Your task to perform on an android device: install app "Pinterest" Image 0: 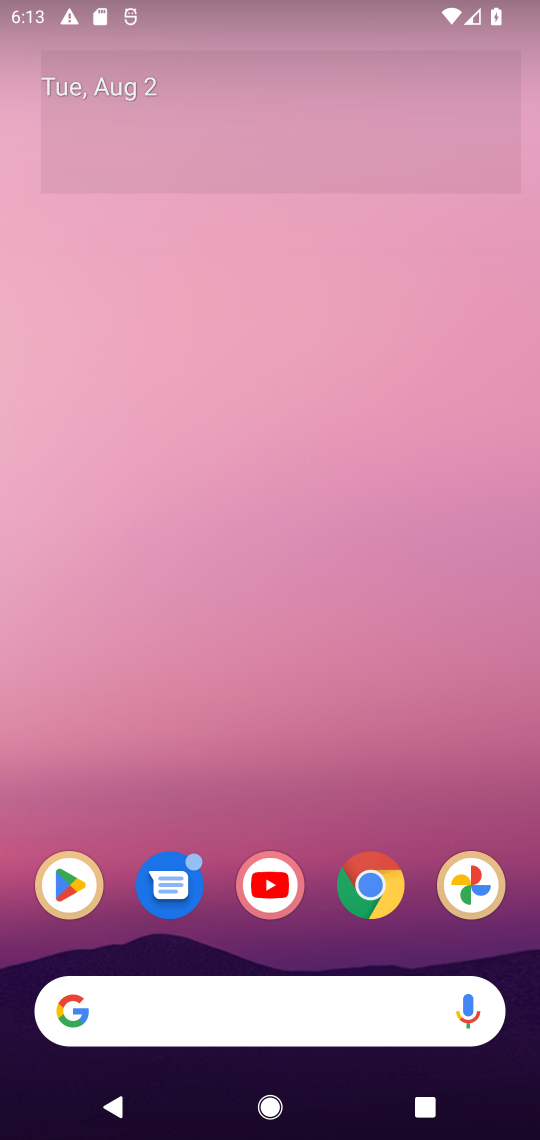
Step 0: press home button
Your task to perform on an android device: install app "Pinterest" Image 1: 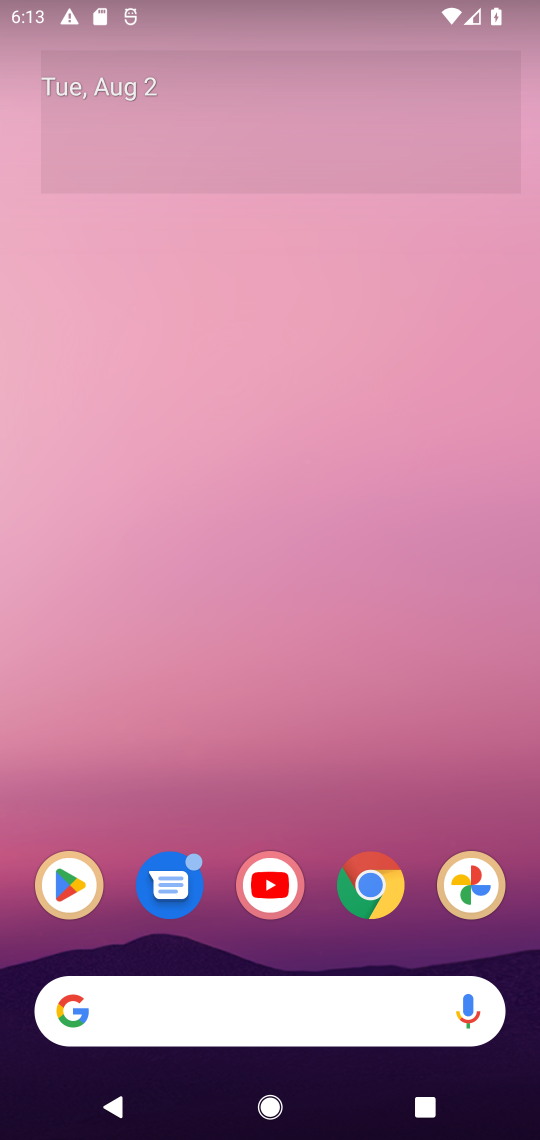
Step 1: drag from (360, 765) to (310, 165)
Your task to perform on an android device: install app "Pinterest" Image 2: 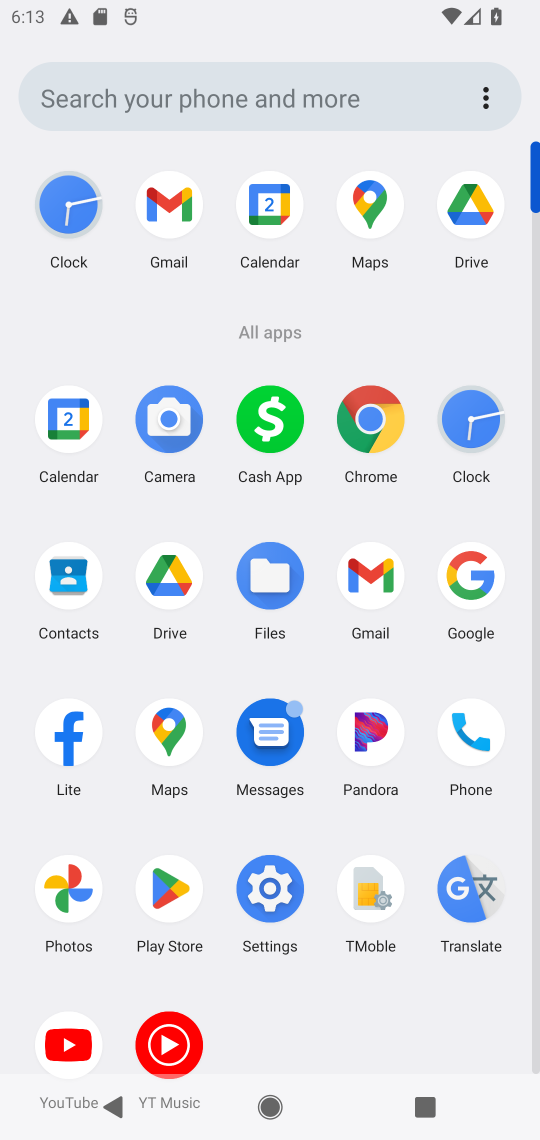
Step 2: click (163, 895)
Your task to perform on an android device: install app "Pinterest" Image 3: 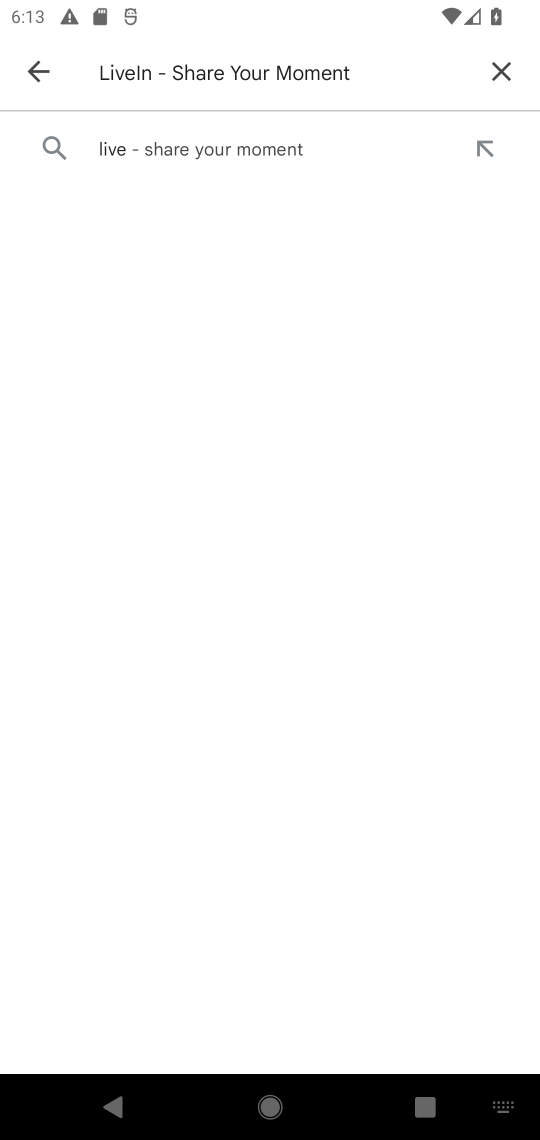
Step 3: click (500, 66)
Your task to perform on an android device: install app "Pinterest" Image 4: 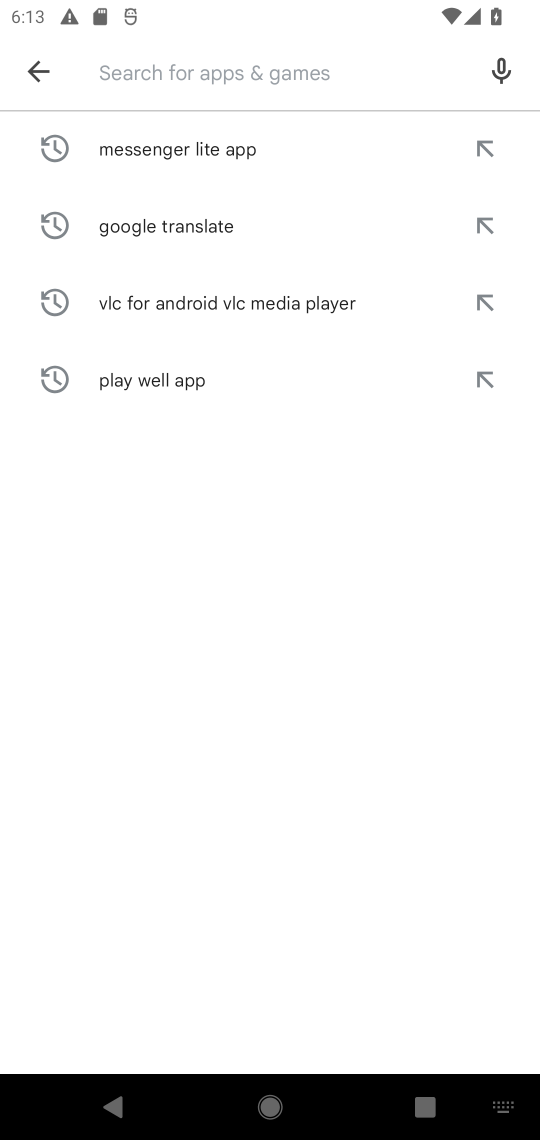
Step 4: type "pinterest"
Your task to perform on an android device: install app "Pinterest" Image 5: 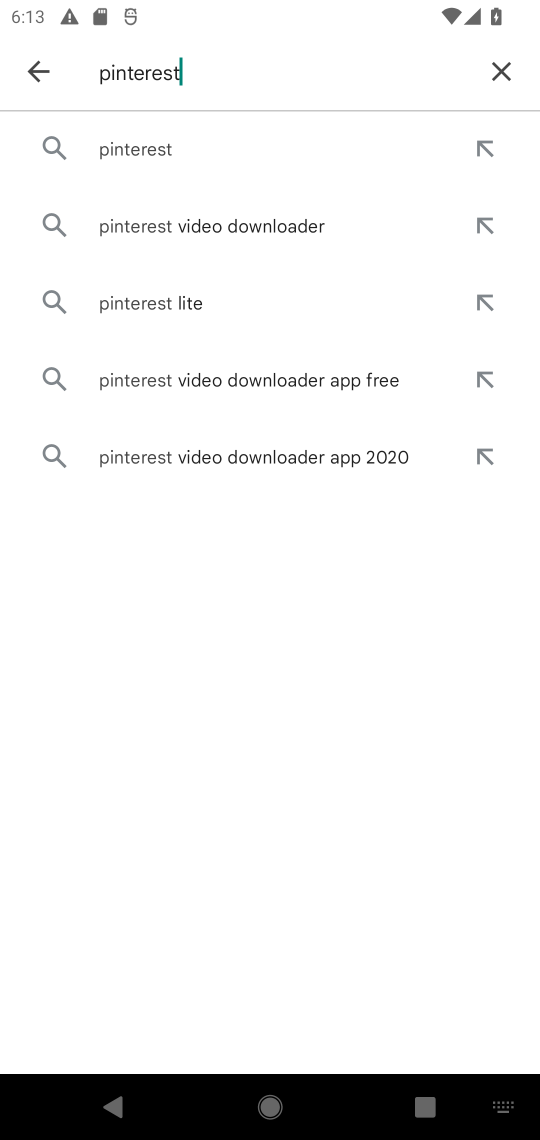
Step 5: click (190, 137)
Your task to perform on an android device: install app "Pinterest" Image 6: 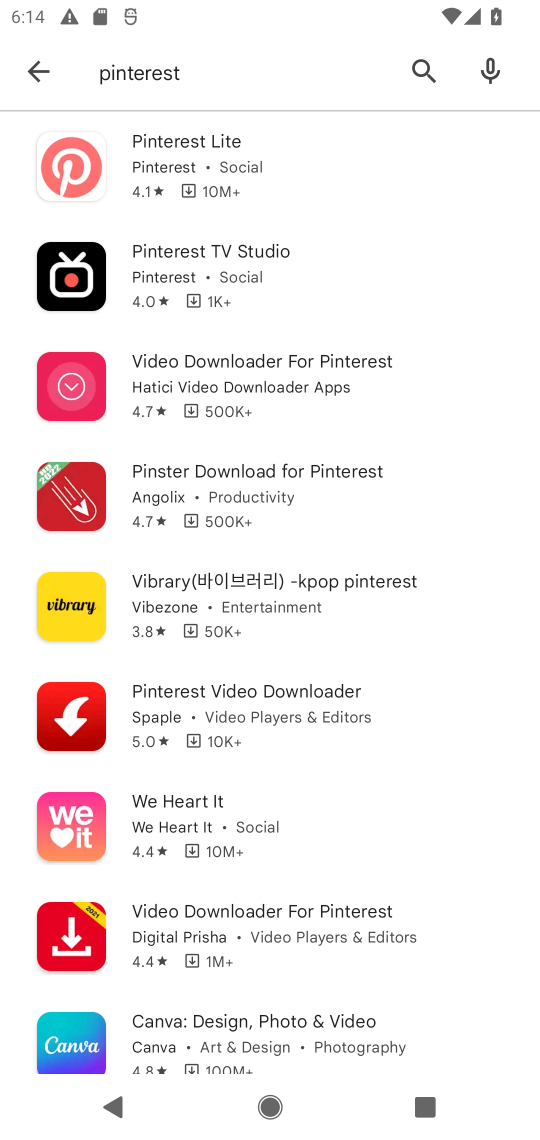
Step 6: task complete